Your task to perform on an android device: Open Wikipedia Image 0: 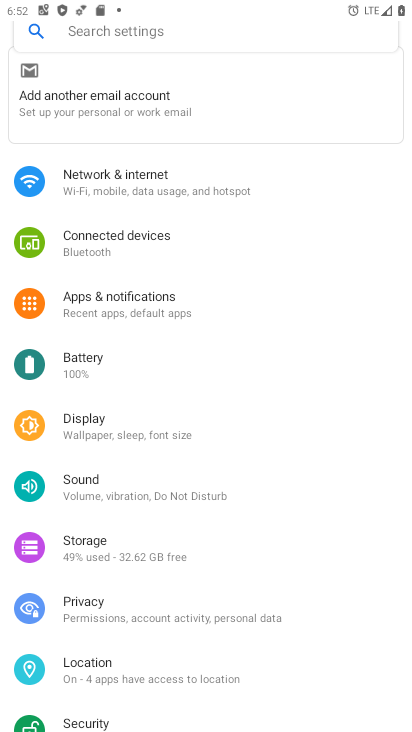
Step 0: press home button
Your task to perform on an android device: Open Wikipedia Image 1: 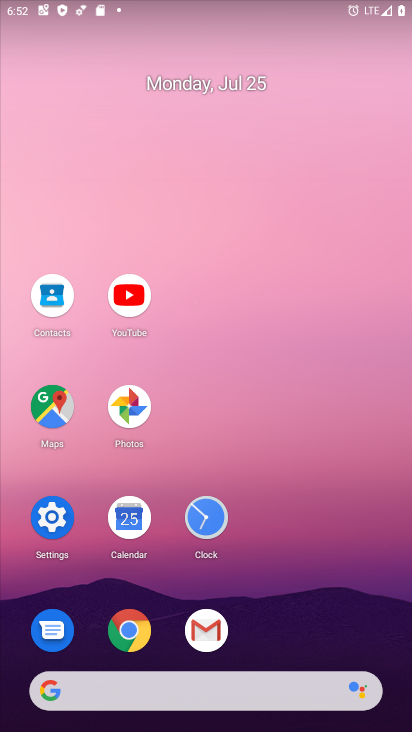
Step 1: click (129, 630)
Your task to perform on an android device: Open Wikipedia Image 2: 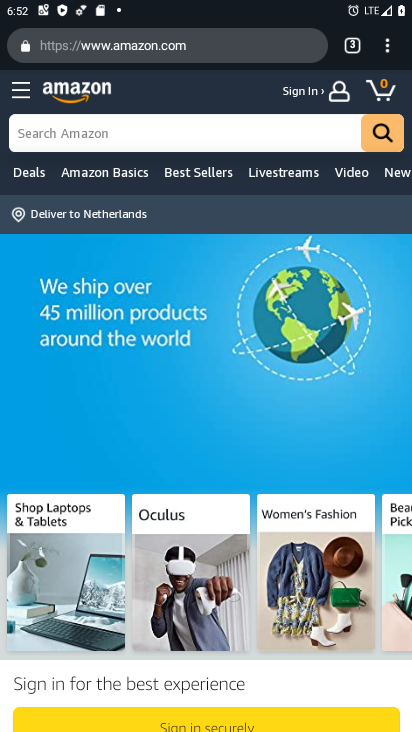
Step 2: click (392, 46)
Your task to perform on an android device: Open Wikipedia Image 3: 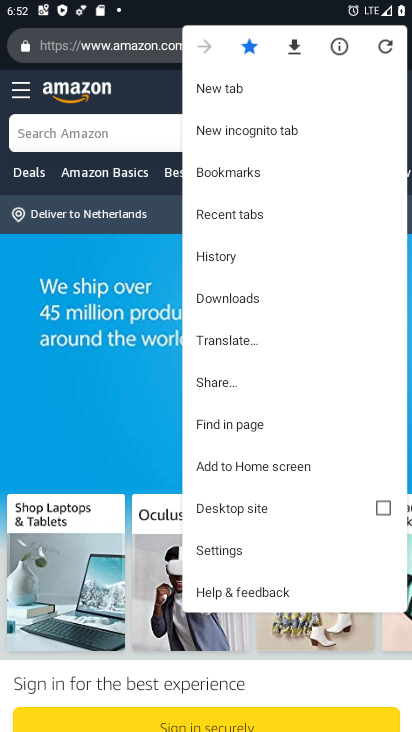
Step 3: click (234, 85)
Your task to perform on an android device: Open Wikipedia Image 4: 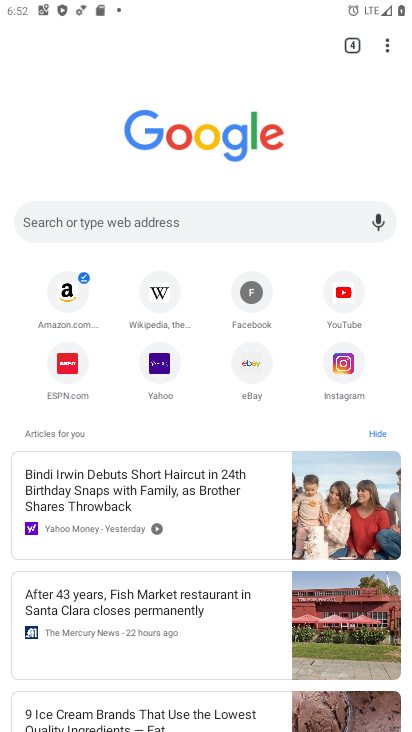
Step 4: click (152, 292)
Your task to perform on an android device: Open Wikipedia Image 5: 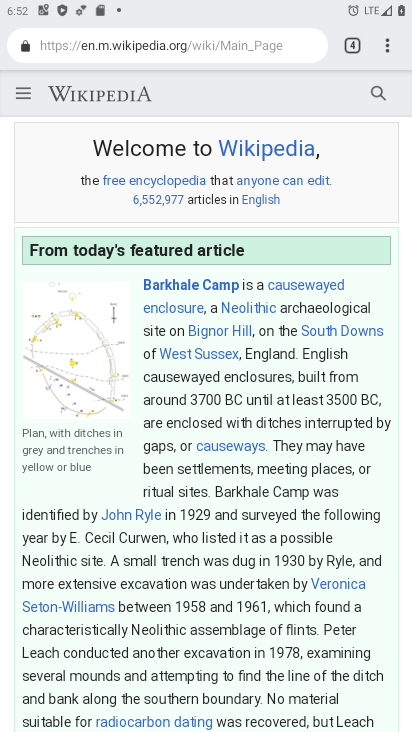
Step 5: task complete